Your task to perform on an android device: Open calendar and show me the second week of next month Image 0: 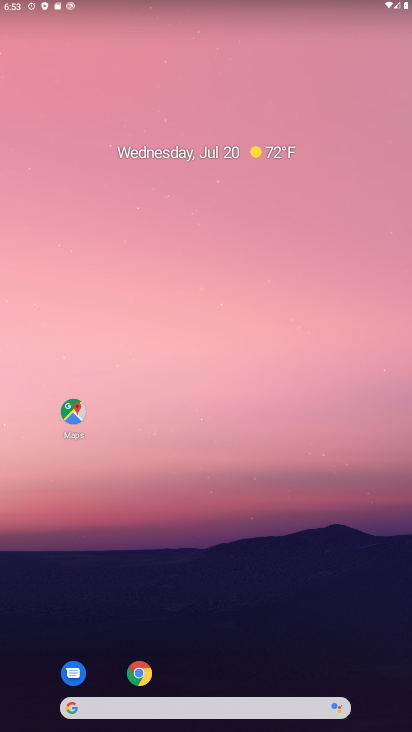
Step 0: drag from (345, 667) to (153, 117)
Your task to perform on an android device: Open calendar and show me the second week of next month Image 1: 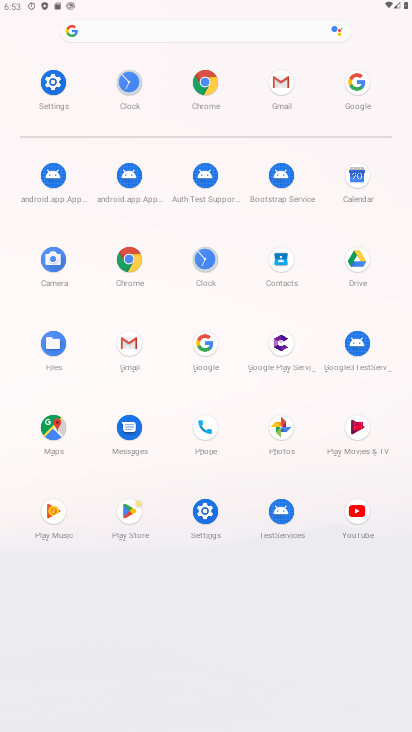
Step 1: click (350, 170)
Your task to perform on an android device: Open calendar and show me the second week of next month Image 2: 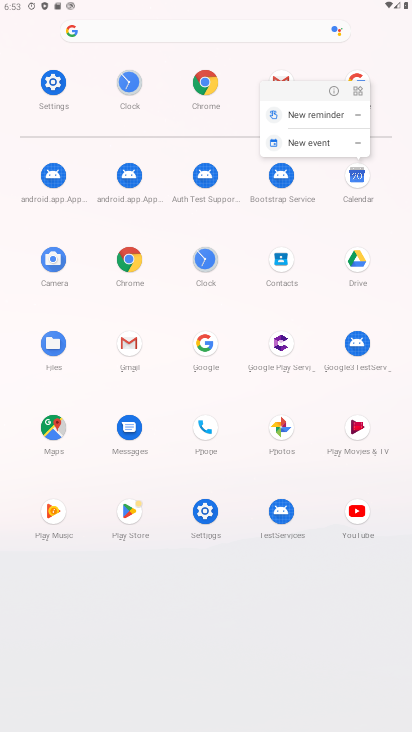
Step 2: click (349, 174)
Your task to perform on an android device: Open calendar and show me the second week of next month Image 3: 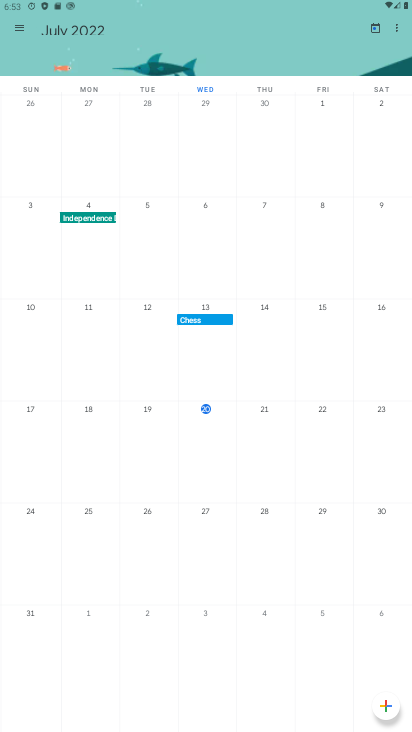
Step 3: drag from (374, 207) to (3, 247)
Your task to perform on an android device: Open calendar and show me the second week of next month Image 4: 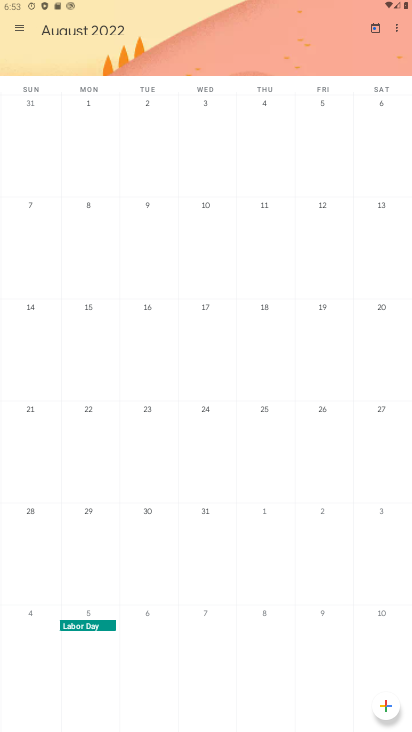
Step 4: click (31, 204)
Your task to perform on an android device: Open calendar and show me the second week of next month Image 5: 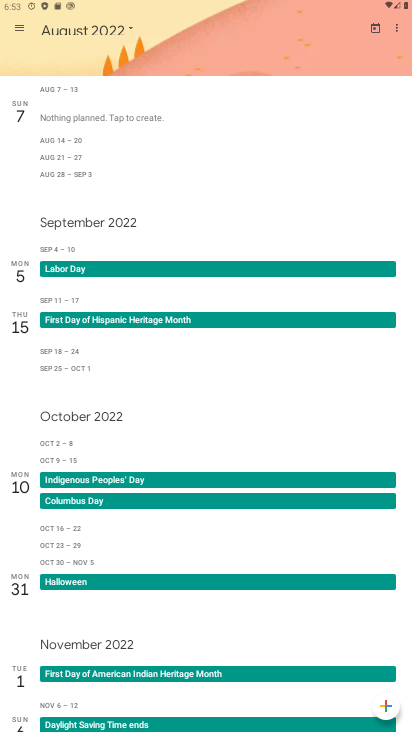
Step 5: task complete